Your task to perform on an android device: turn smart compose on in the gmail app Image 0: 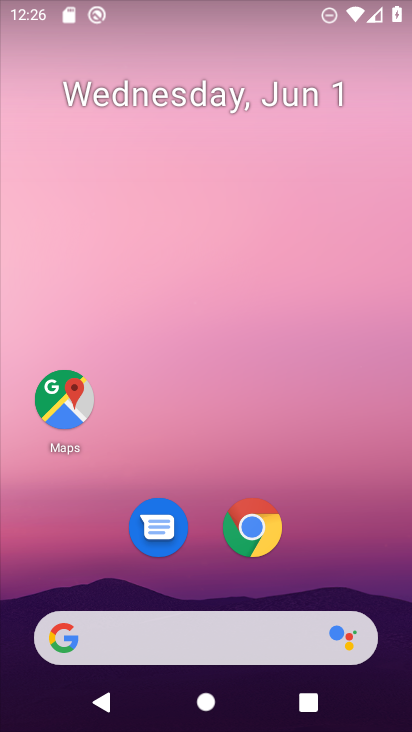
Step 0: drag from (250, 403) to (223, 8)
Your task to perform on an android device: turn smart compose on in the gmail app Image 1: 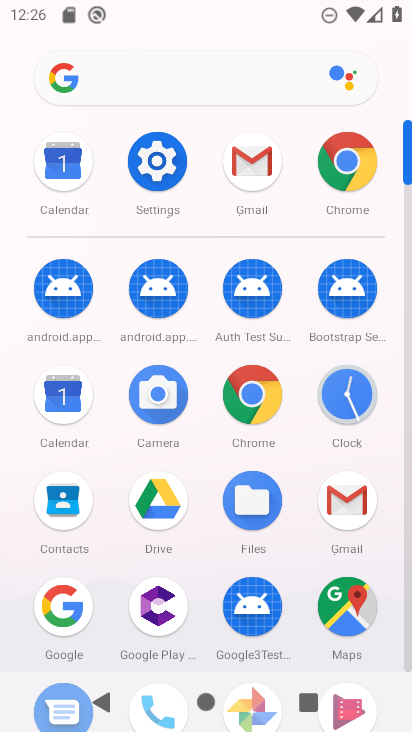
Step 1: click (331, 498)
Your task to perform on an android device: turn smart compose on in the gmail app Image 2: 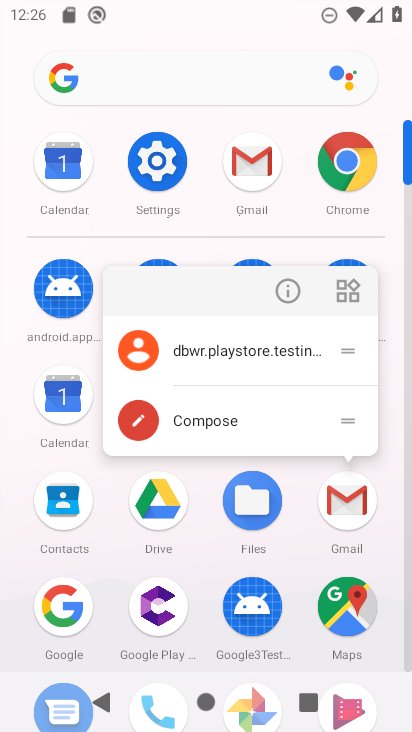
Step 2: click (339, 496)
Your task to perform on an android device: turn smart compose on in the gmail app Image 3: 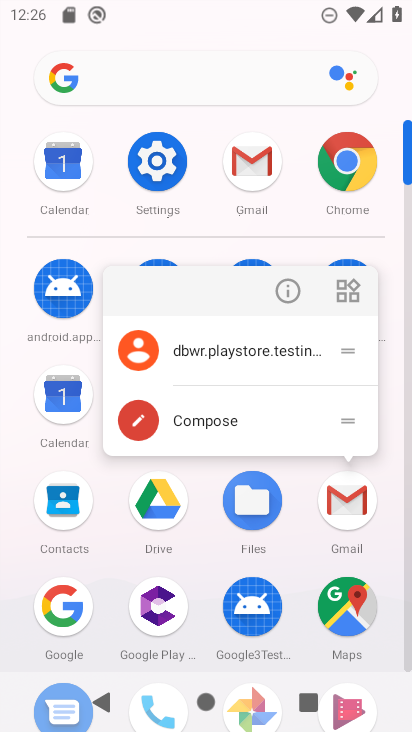
Step 3: click (339, 496)
Your task to perform on an android device: turn smart compose on in the gmail app Image 4: 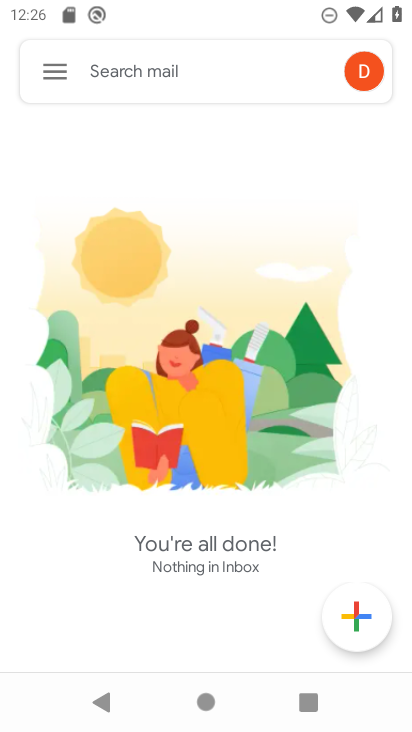
Step 4: click (56, 67)
Your task to perform on an android device: turn smart compose on in the gmail app Image 5: 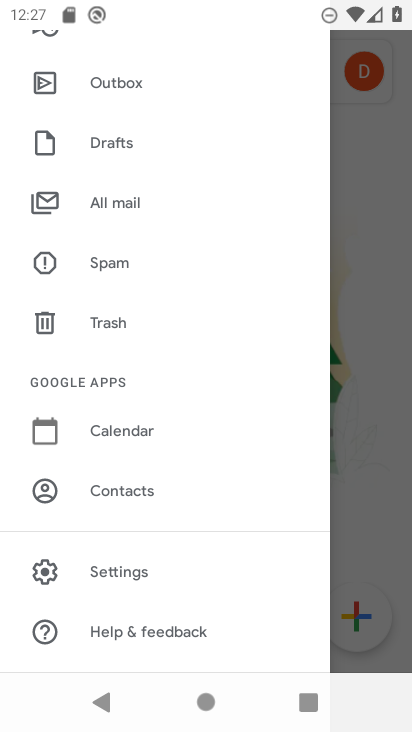
Step 5: click (132, 570)
Your task to perform on an android device: turn smart compose on in the gmail app Image 6: 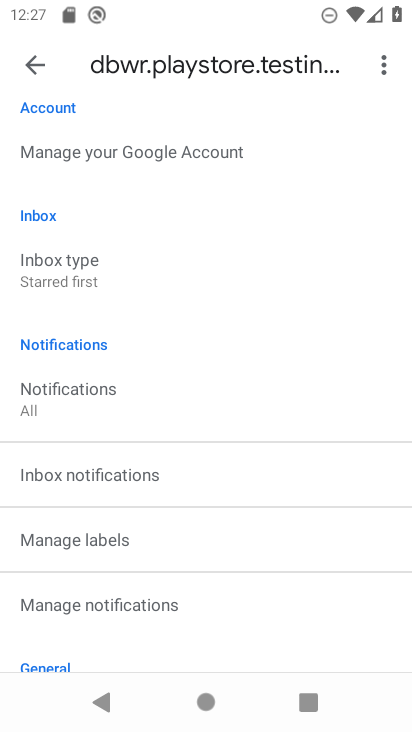
Step 6: task complete